Your task to perform on an android device: Open Google Maps and go to "Timeline" Image 0: 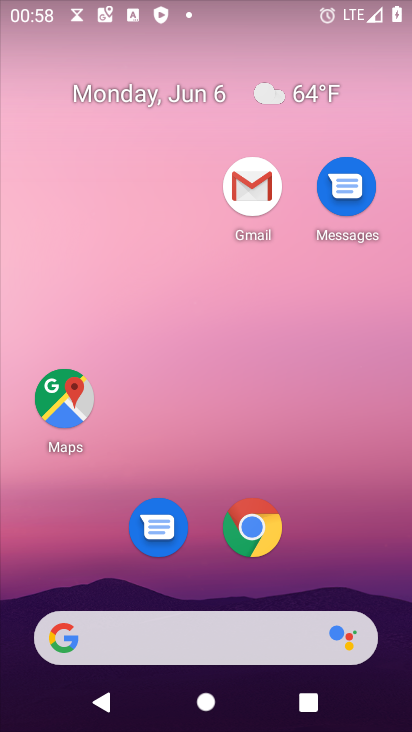
Step 0: click (55, 396)
Your task to perform on an android device: Open Google Maps and go to "Timeline" Image 1: 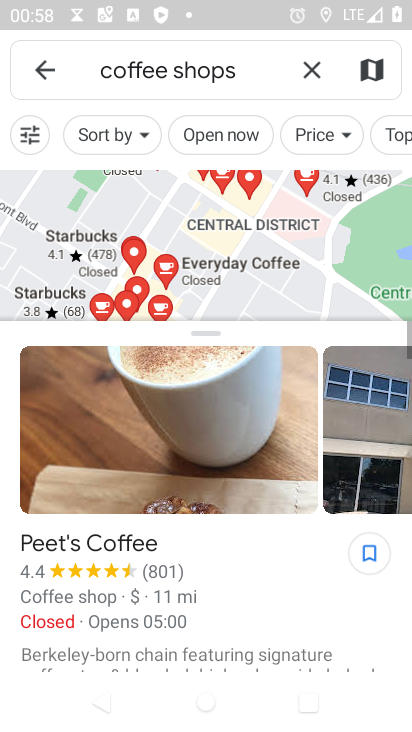
Step 1: click (321, 70)
Your task to perform on an android device: Open Google Maps and go to "Timeline" Image 2: 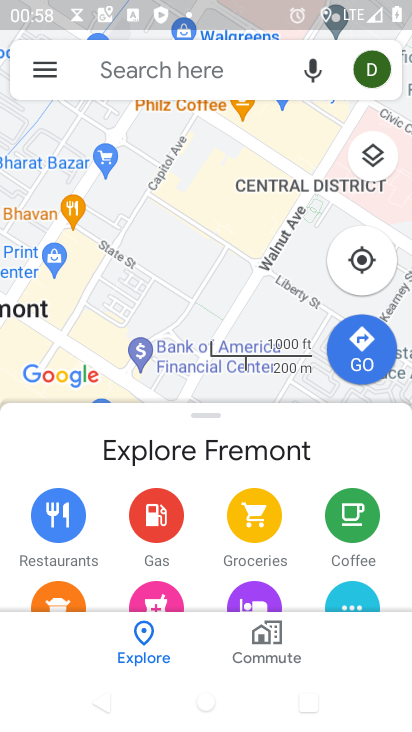
Step 2: click (224, 69)
Your task to perform on an android device: Open Google Maps and go to "Timeline" Image 3: 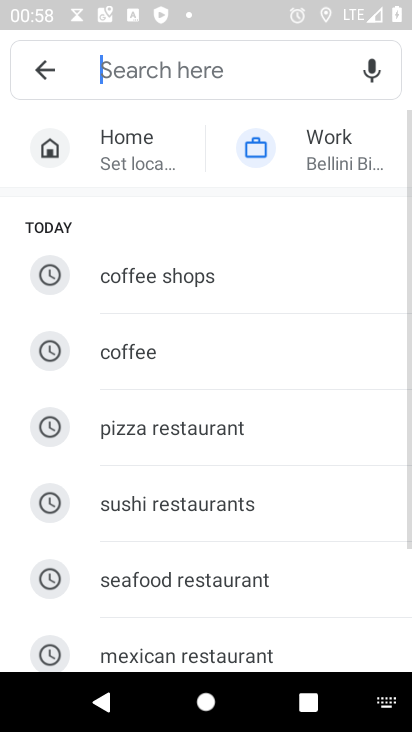
Step 3: click (39, 59)
Your task to perform on an android device: Open Google Maps and go to "Timeline" Image 4: 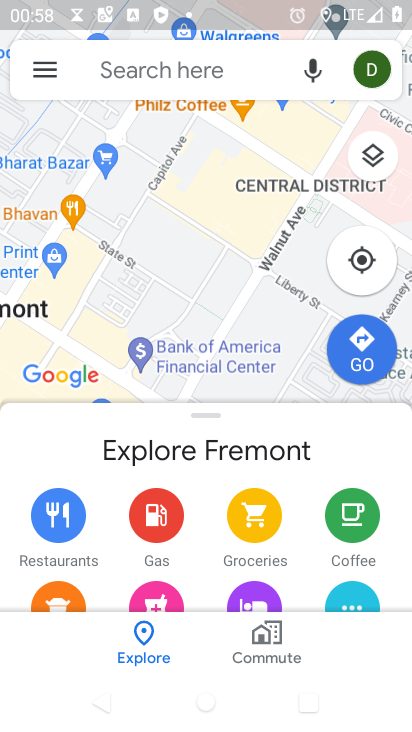
Step 4: click (40, 56)
Your task to perform on an android device: Open Google Maps and go to "Timeline" Image 5: 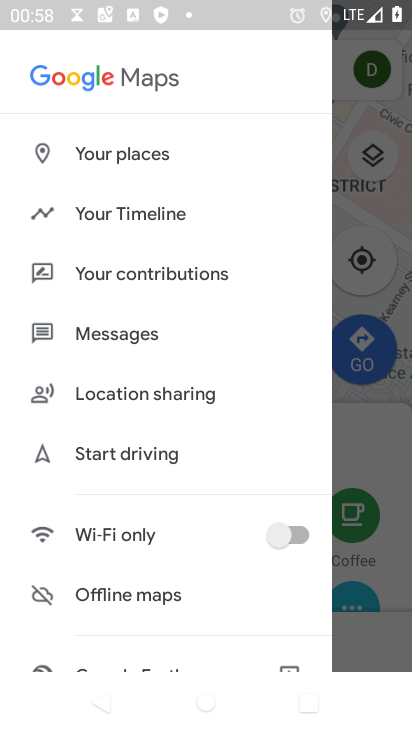
Step 5: drag from (178, 534) to (233, 64)
Your task to perform on an android device: Open Google Maps and go to "Timeline" Image 6: 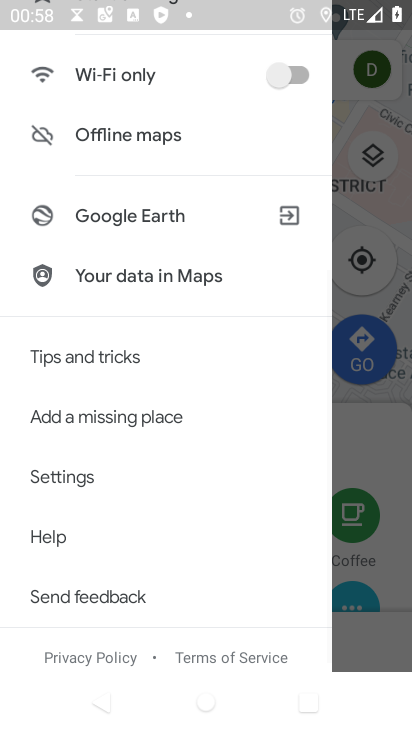
Step 6: drag from (227, 108) to (212, 658)
Your task to perform on an android device: Open Google Maps and go to "Timeline" Image 7: 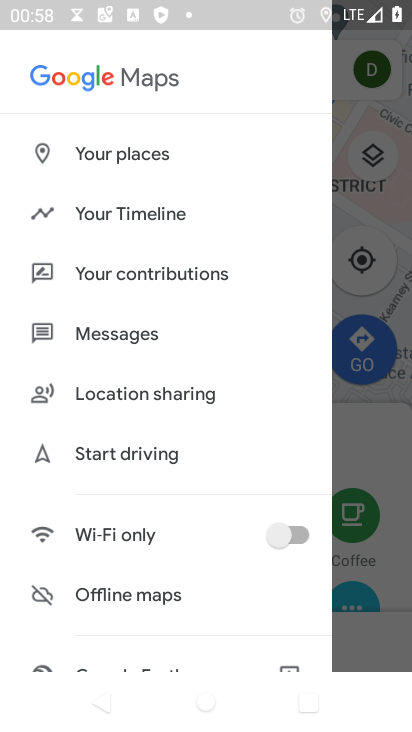
Step 7: click (117, 214)
Your task to perform on an android device: Open Google Maps and go to "Timeline" Image 8: 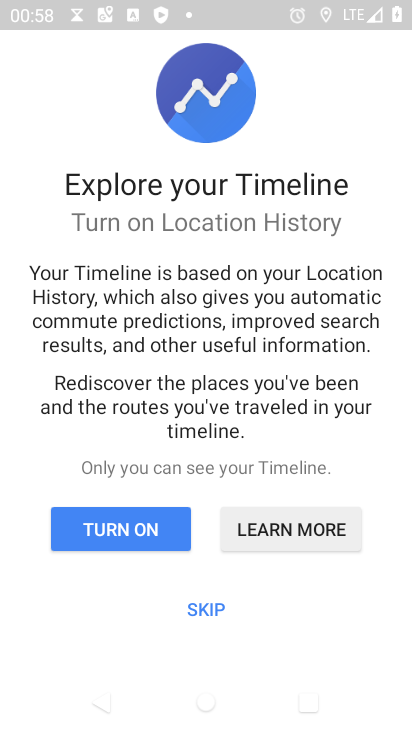
Step 8: task complete